Your task to perform on an android device: Open battery settings Image 0: 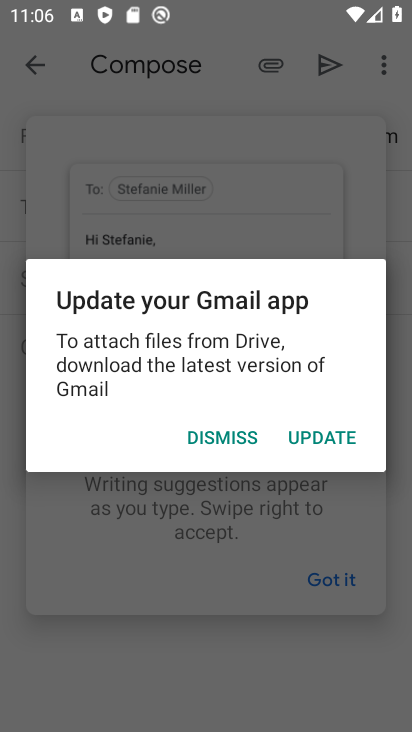
Step 0: press home button
Your task to perform on an android device: Open battery settings Image 1: 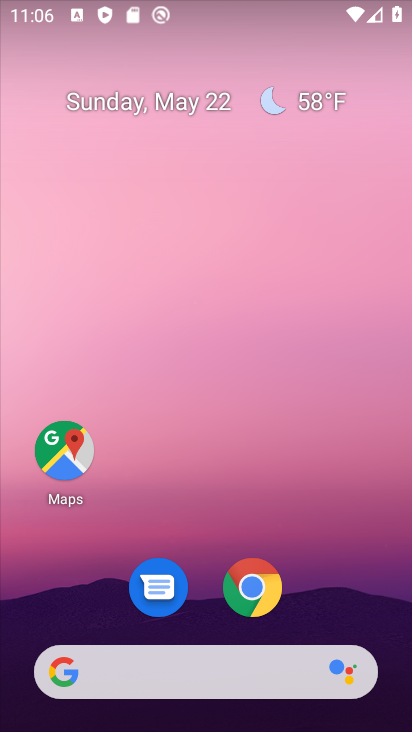
Step 1: drag from (227, 500) to (264, 59)
Your task to perform on an android device: Open battery settings Image 2: 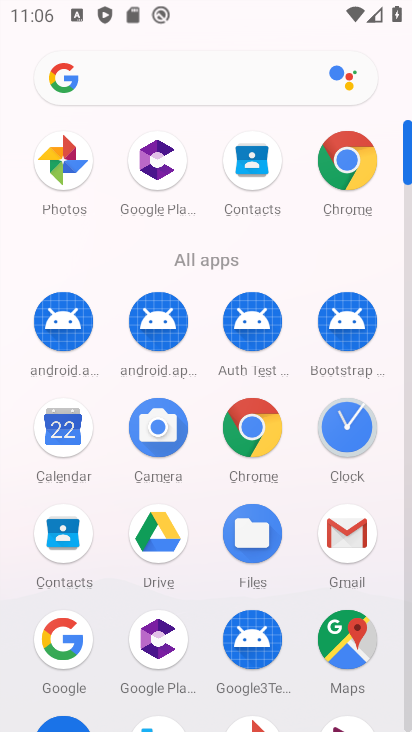
Step 2: drag from (116, 492) to (139, 146)
Your task to perform on an android device: Open battery settings Image 3: 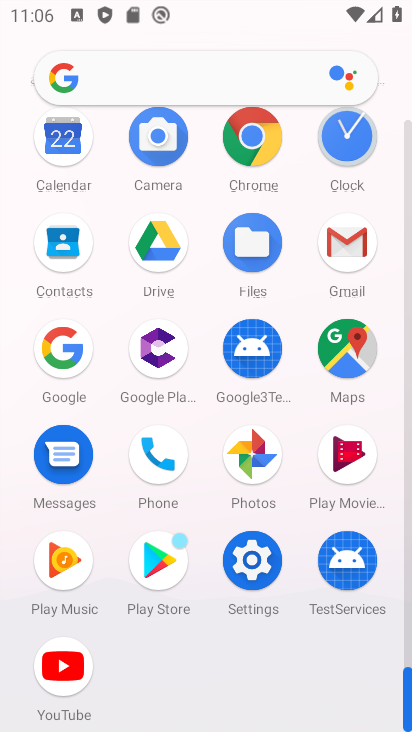
Step 3: click (247, 544)
Your task to perform on an android device: Open battery settings Image 4: 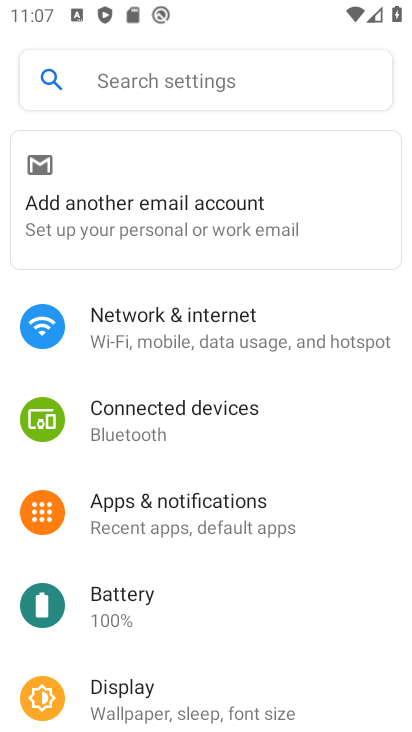
Step 4: click (146, 612)
Your task to perform on an android device: Open battery settings Image 5: 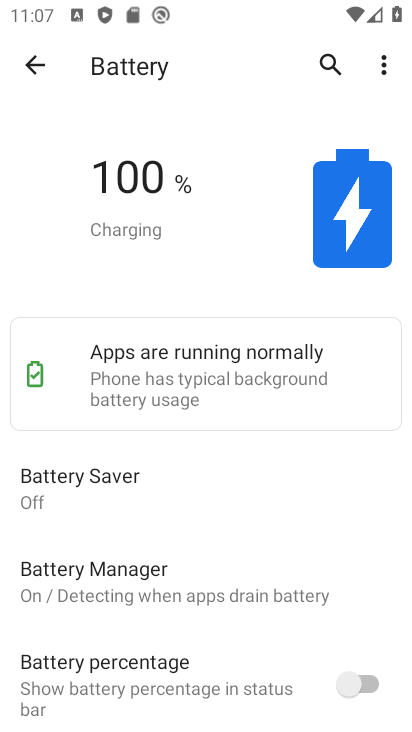
Step 5: task complete